Your task to perform on an android device: toggle pop-ups in chrome Image 0: 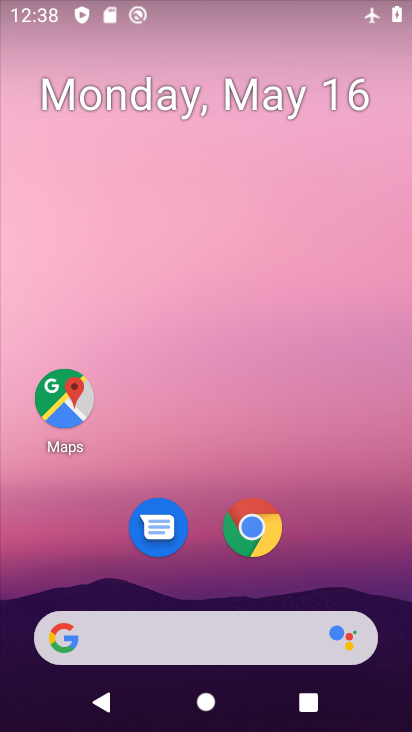
Step 0: drag from (174, 570) to (193, 261)
Your task to perform on an android device: toggle pop-ups in chrome Image 1: 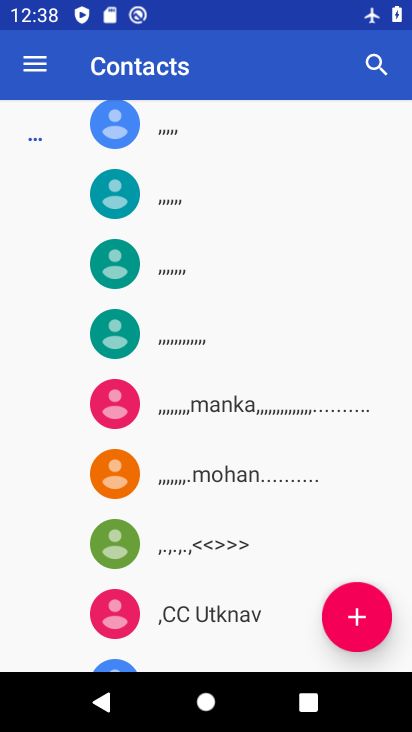
Step 1: press home button
Your task to perform on an android device: toggle pop-ups in chrome Image 2: 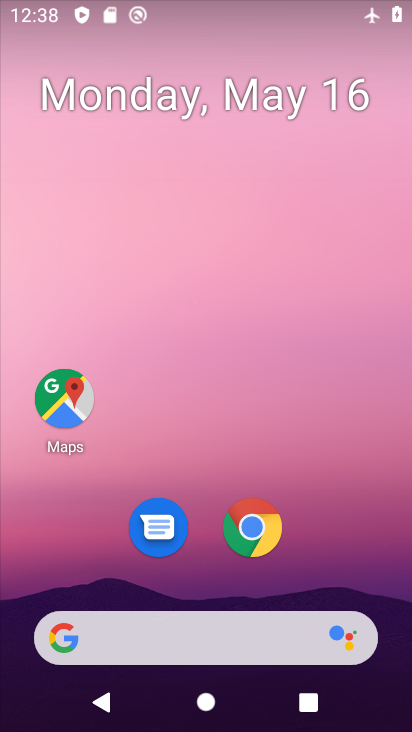
Step 2: click (185, 589)
Your task to perform on an android device: toggle pop-ups in chrome Image 3: 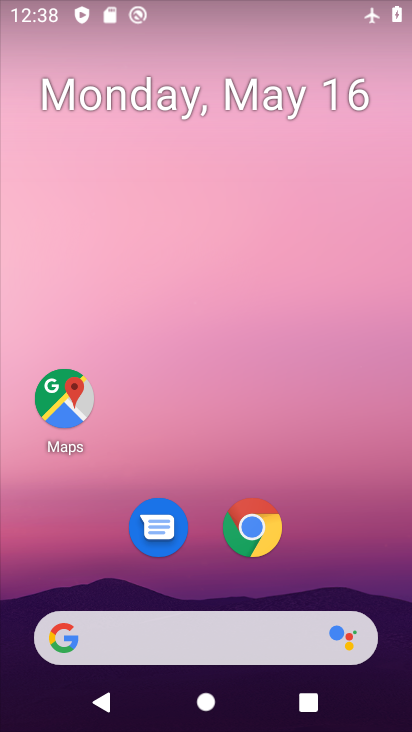
Step 3: click (264, 516)
Your task to perform on an android device: toggle pop-ups in chrome Image 4: 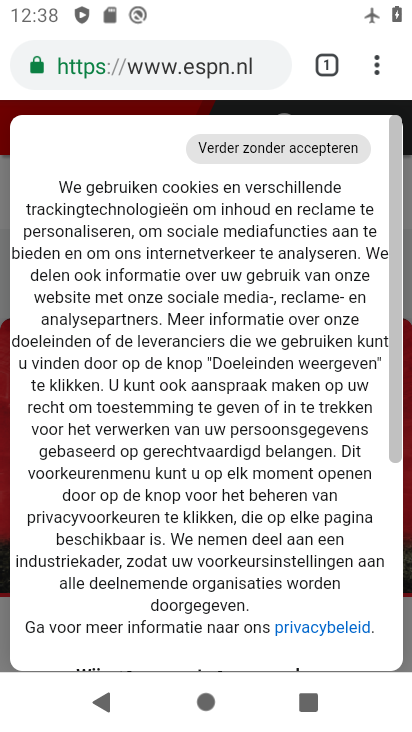
Step 4: click (368, 107)
Your task to perform on an android device: toggle pop-ups in chrome Image 5: 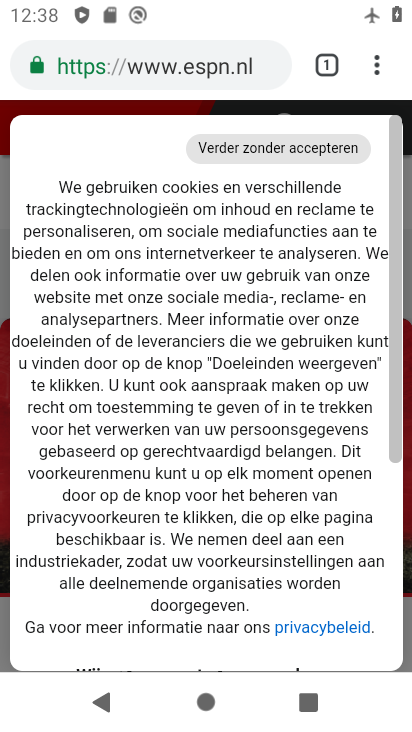
Step 5: click (379, 61)
Your task to perform on an android device: toggle pop-ups in chrome Image 6: 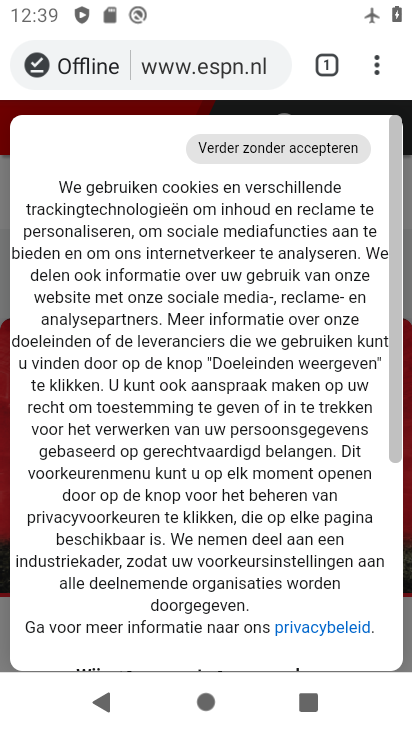
Step 6: click (373, 66)
Your task to perform on an android device: toggle pop-ups in chrome Image 7: 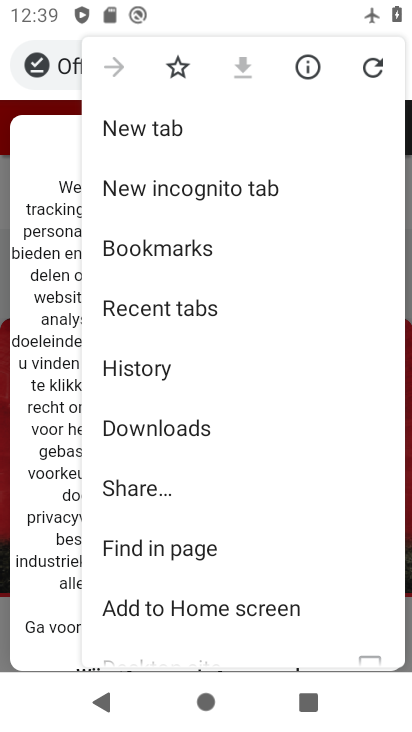
Step 7: drag from (131, 588) to (199, 233)
Your task to perform on an android device: toggle pop-ups in chrome Image 8: 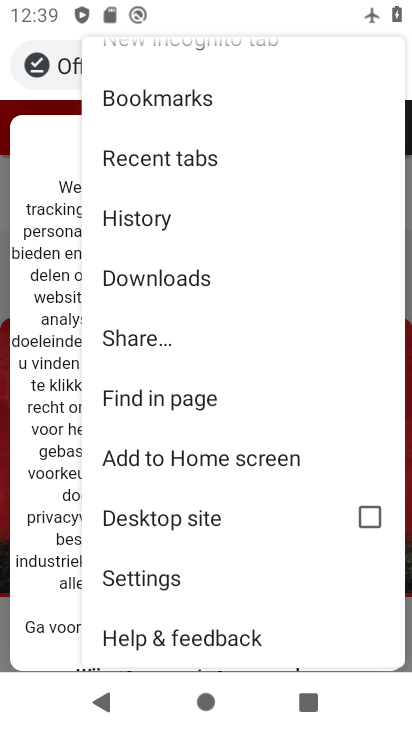
Step 8: click (164, 571)
Your task to perform on an android device: toggle pop-ups in chrome Image 9: 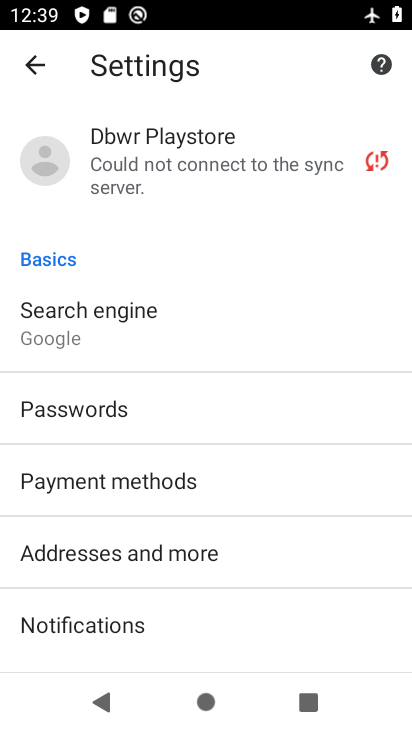
Step 9: drag from (128, 586) to (224, 228)
Your task to perform on an android device: toggle pop-ups in chrome Image 10: 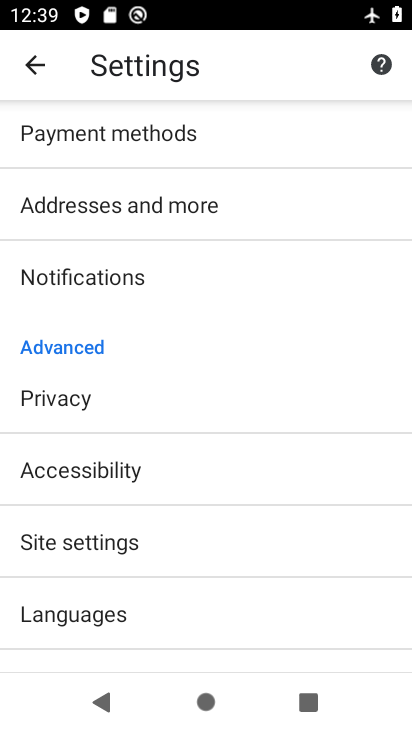
Step 10: drag from (126, 563) to (191, 256)
Your task to perform on an android device: toggle pop-ups in chrome Image 11: 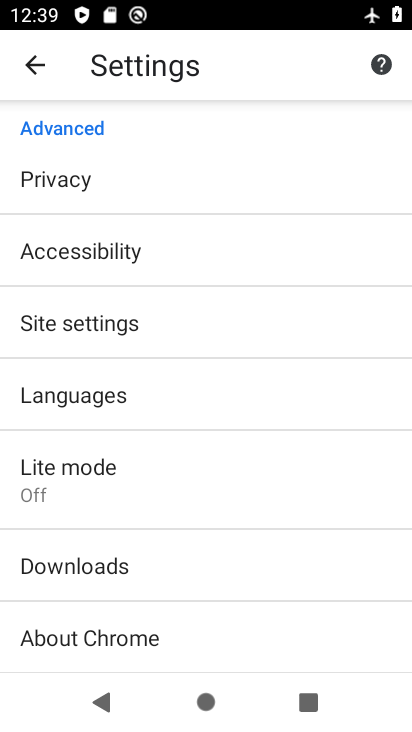
Step 11: click (111, 328)
Your task to perform on an android device: toggle pop-ups in chrome Image 12: 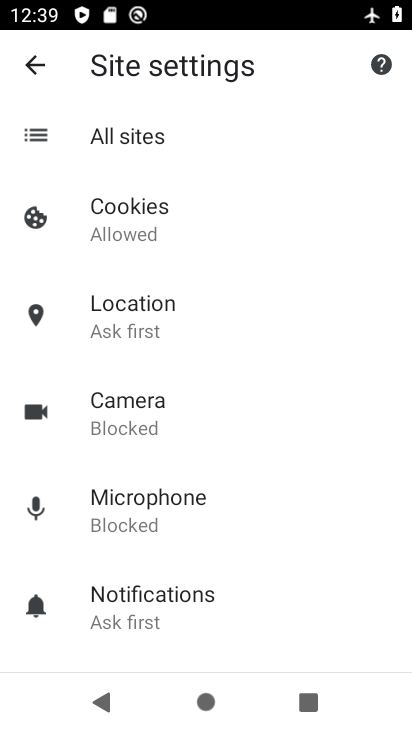
Step 12: drag from (152, 503) to (215, 166)
Your task to perform on an android device: toggle pop-ups in chrome Image 13: 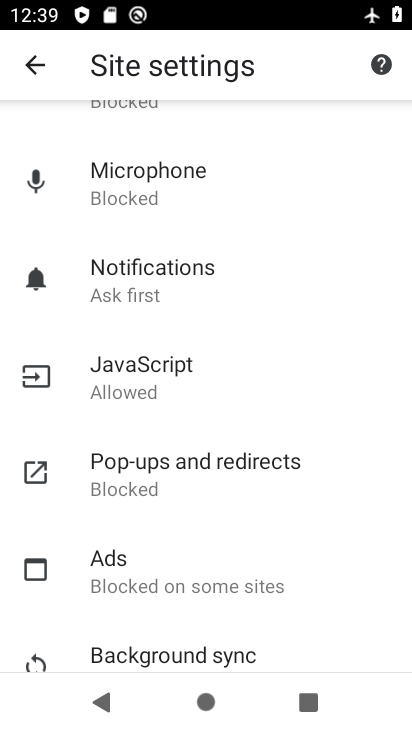
Step 13: drag from (145, 571) to (233, 323)
Your task to perform on an android device: toggle pop-ups in chrome Image 14: 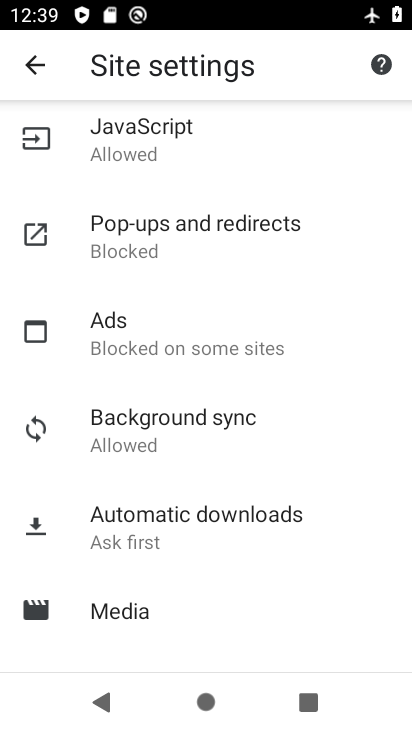
Step 14: click (218, 246)
Your task to perform on an android device: toggle pop-ups in chrome Image 15: 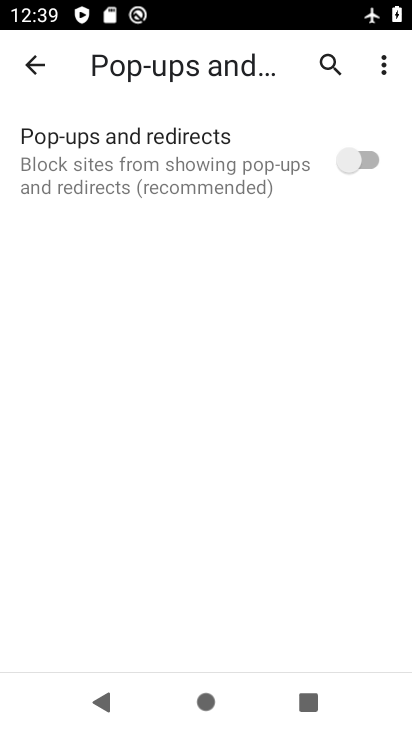
Step 15: click (364, 166)
Your task to perform on an android device: toggle pop-ups in chrome Image 16: 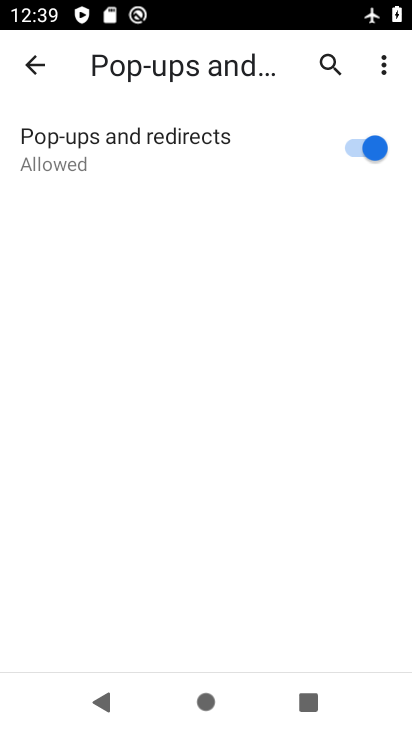
Step 16: task complete